Your task to perform on an android device: Play the last video I watched on Youtube Image 0: 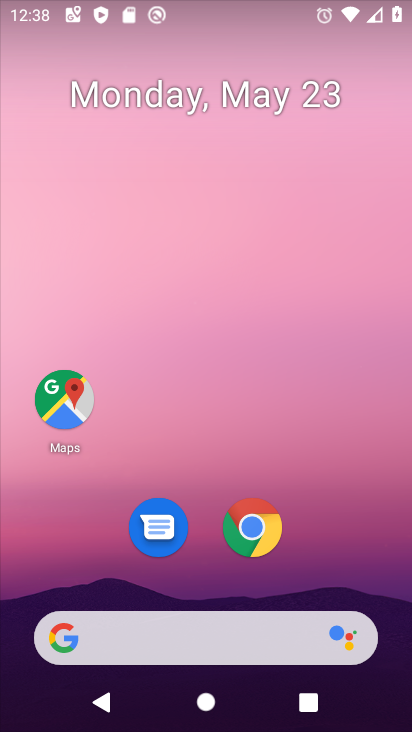
Step 0: drag from (385, 604) to (256, 20)
Your task to perform on an android device: Play the last video I watched on Youtube Image 1: 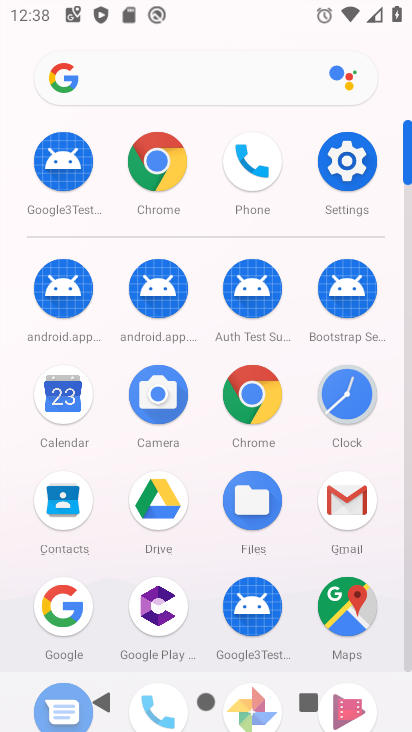
Step 1: click (405, 603)
Your task to perform on an android device: Play the last video I watched on Youtube Image 2: 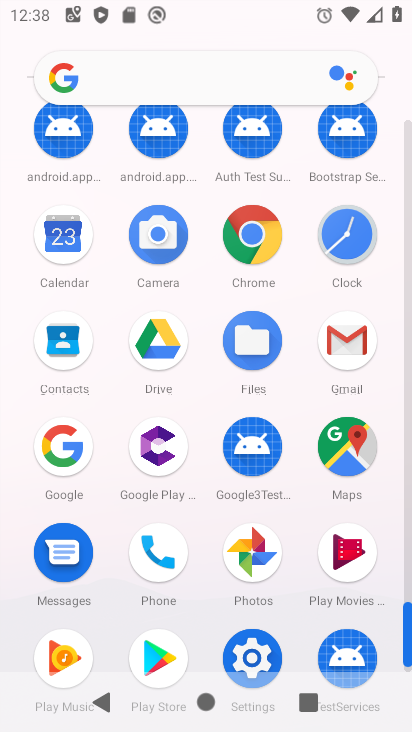
Step 2: drag from (407, 654) to (385, 695)
Your task to perform on an android device: Play the last video I watched on Youtube Image 3: 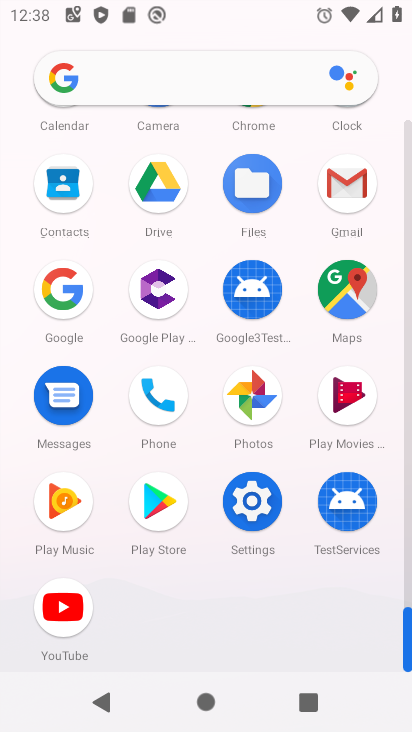
Step 3: click (43, 633)
Your task to perform on an android device: Play the last video I watched on Youtube Image 4: 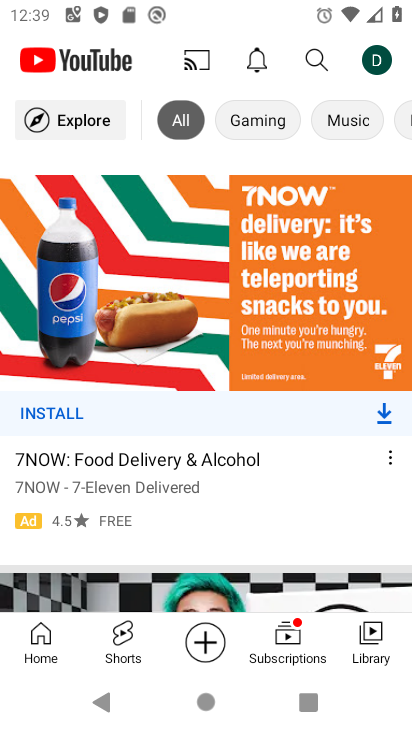
Step 4: click (358, 658)
Your task to perform on an android device: Play the last video I watched on Youtube Image 5: 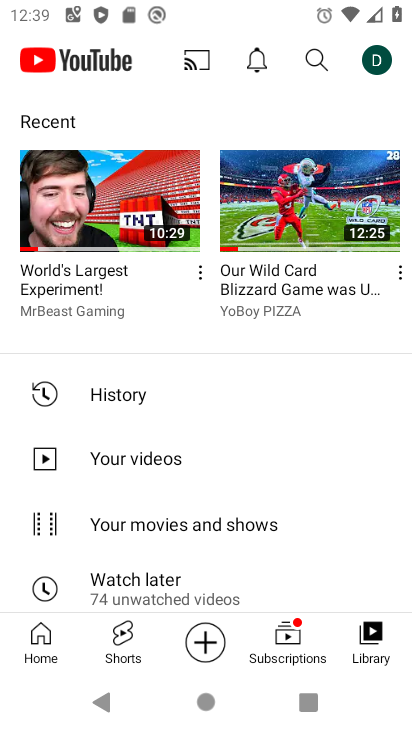
Step 5: task complete